Your task to perform on an android device: Add "bose soundlink" to the cart on walmart.com Image 0: 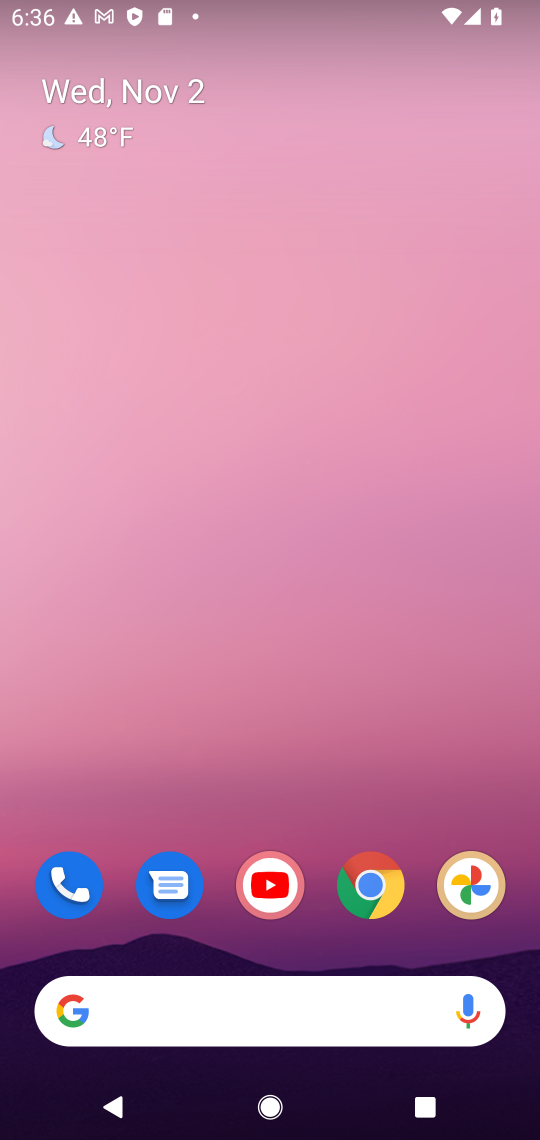
Step 0: click (367, 884)
Your task to perform on an android device: Add "bose soundlink" to the cart on walmart.com Image 1: 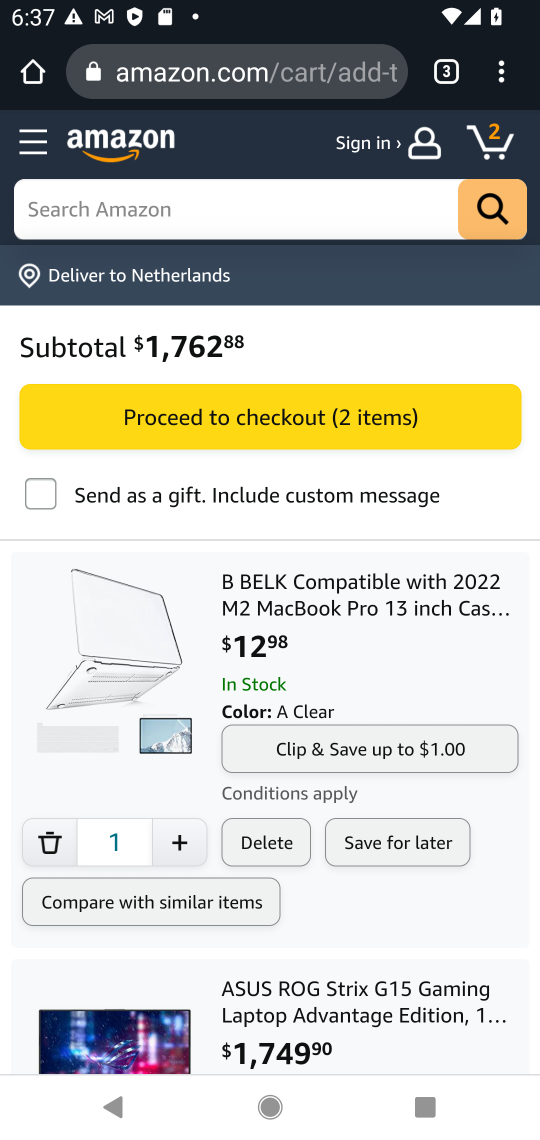
Step 1: drag from (499, 85) to (251, 151)
Your task to perform on an android device: Add "bose soundlink" to the cart on walmart.com Image 2: 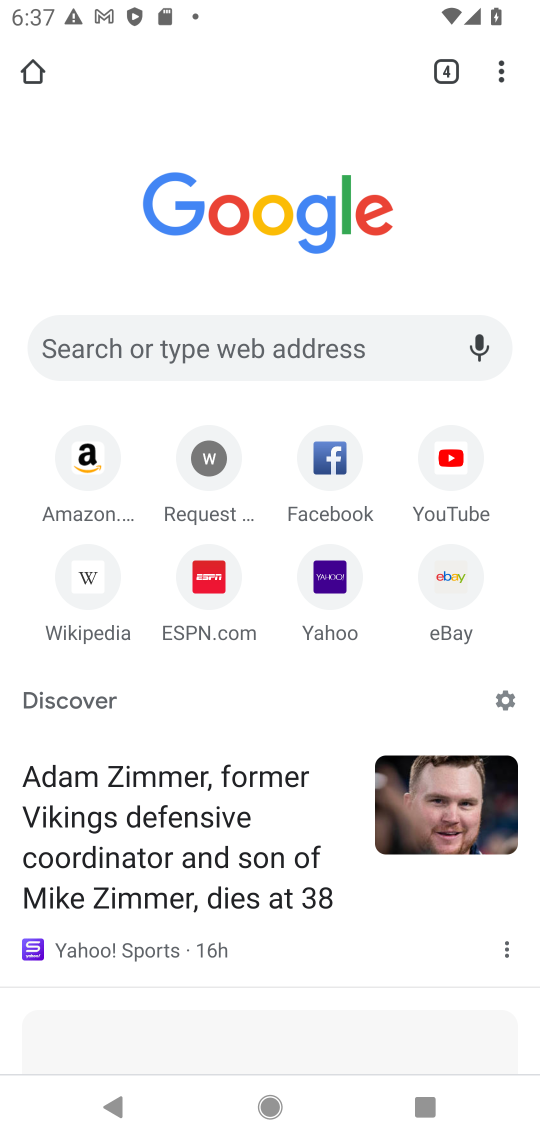
Step 2: click (219, 355)
Your task to perform on an android device: Add "bose soundlink" to the cart on walmart.com Image 3: 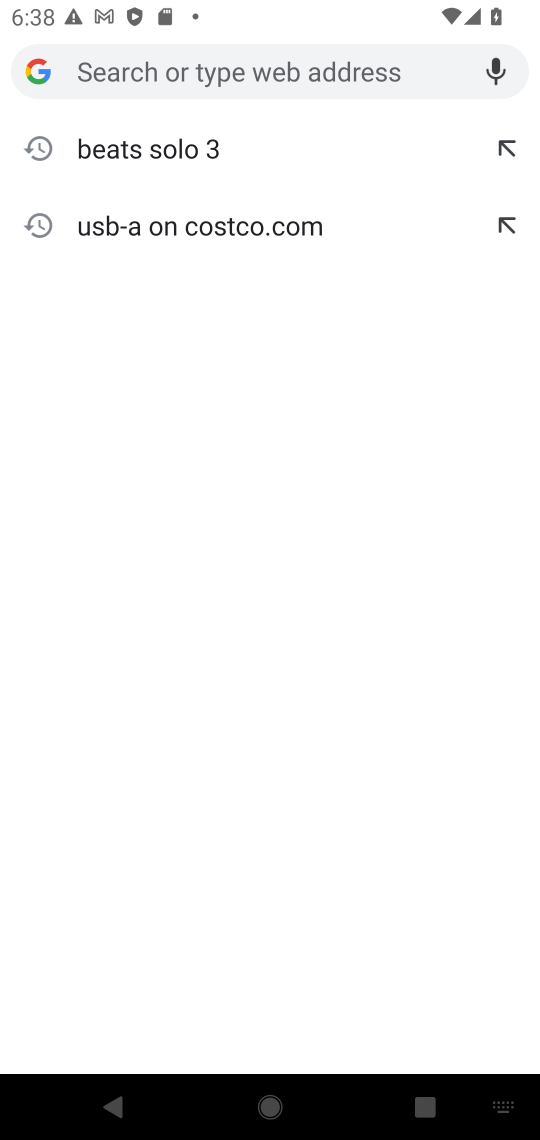
Step 3: type "bose soundlink""
Your task to perform on an android device: Add "bose soundlink" to the cart on walmart.com Image 4: 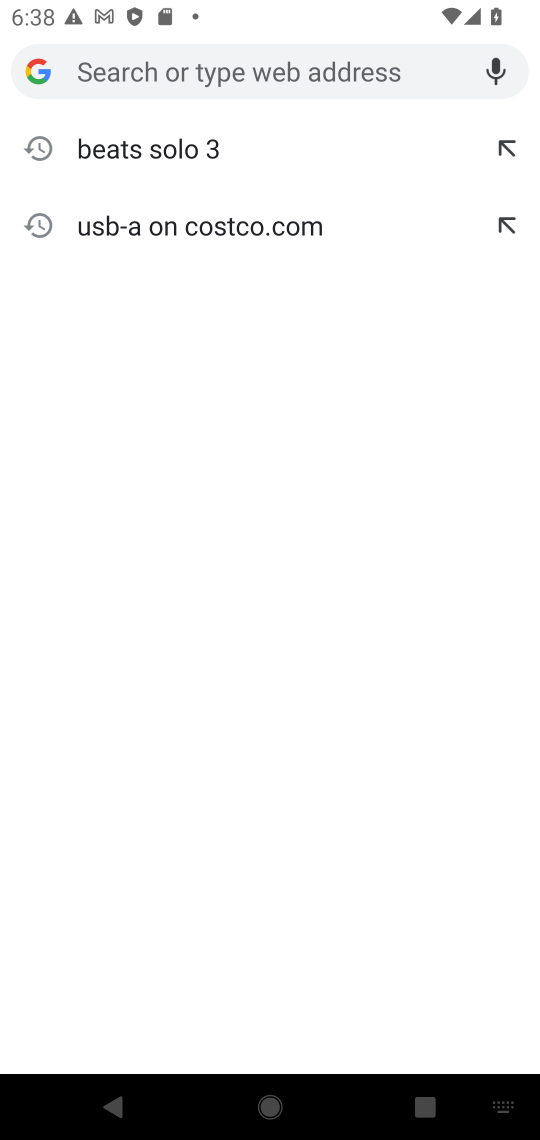
Step 4: type ""
Your task to perform on an android device: Add "bose soundlink" to the cart on walmart.com Image 5: 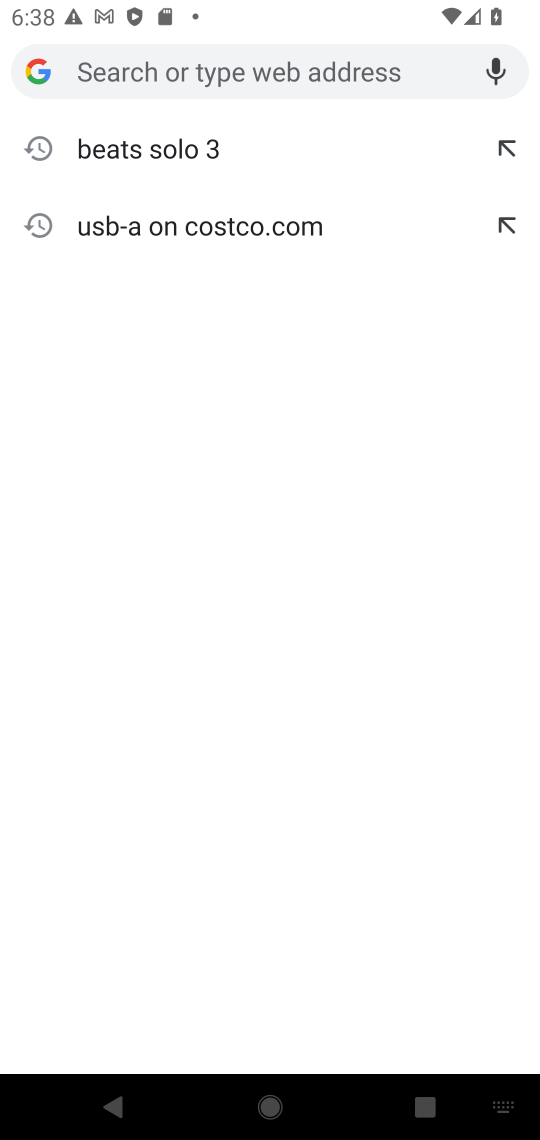
Step 5: type "bose soundlink""
Your task to perform on an android device: Add "bose soundlink" to the cart on walmart.com Image 6: 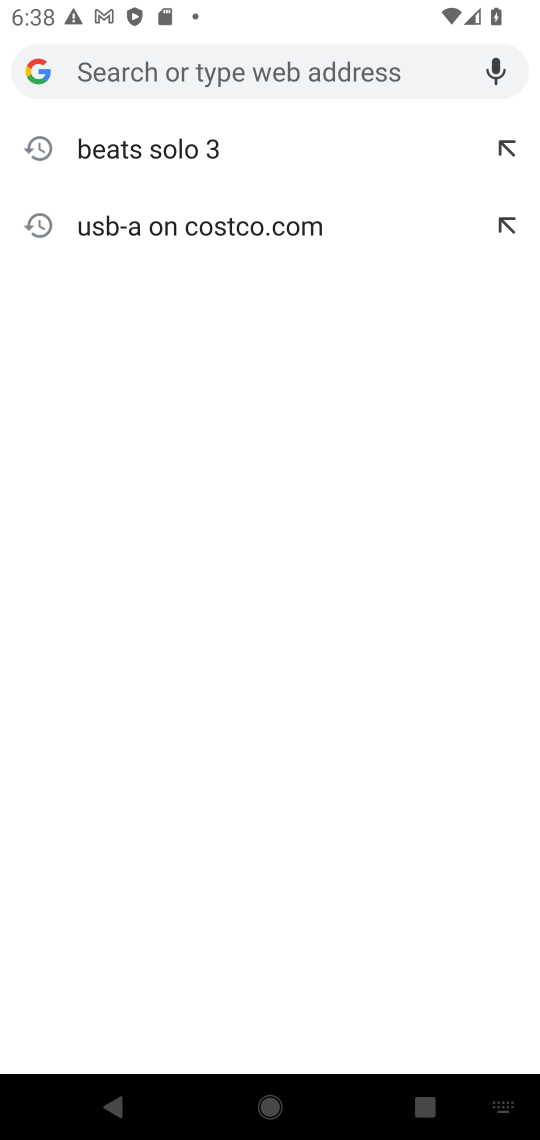
Step 6: type ""
Your task to perform on an android device: Add "bose soundlink" to the cart on walmart.com Image 7: 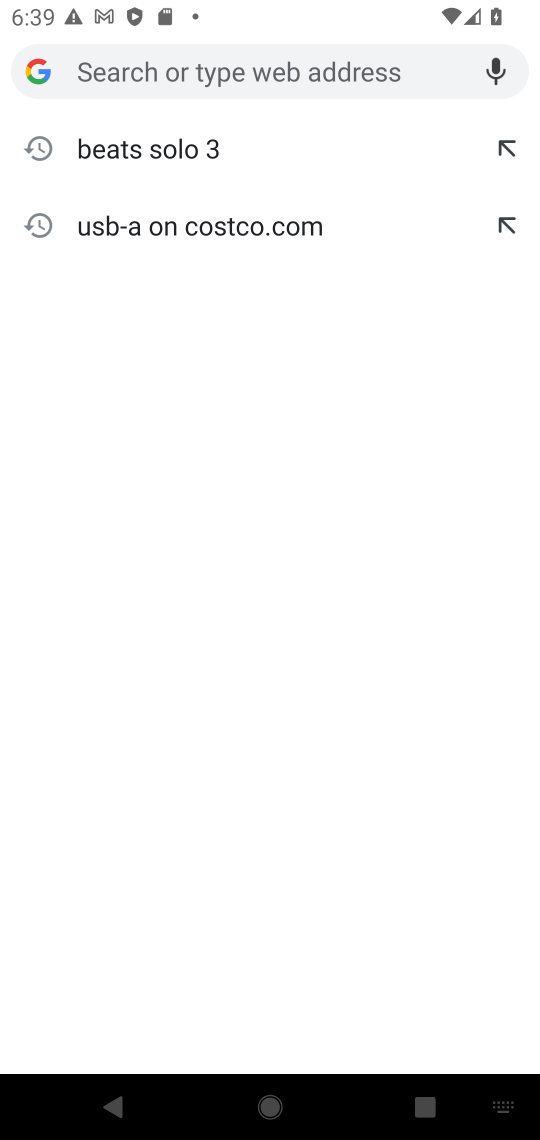
Step 7: type "walmart.com"
Your task to perform on an android device: Add "bose soundlink" to the cart on walmart.com Image 8: 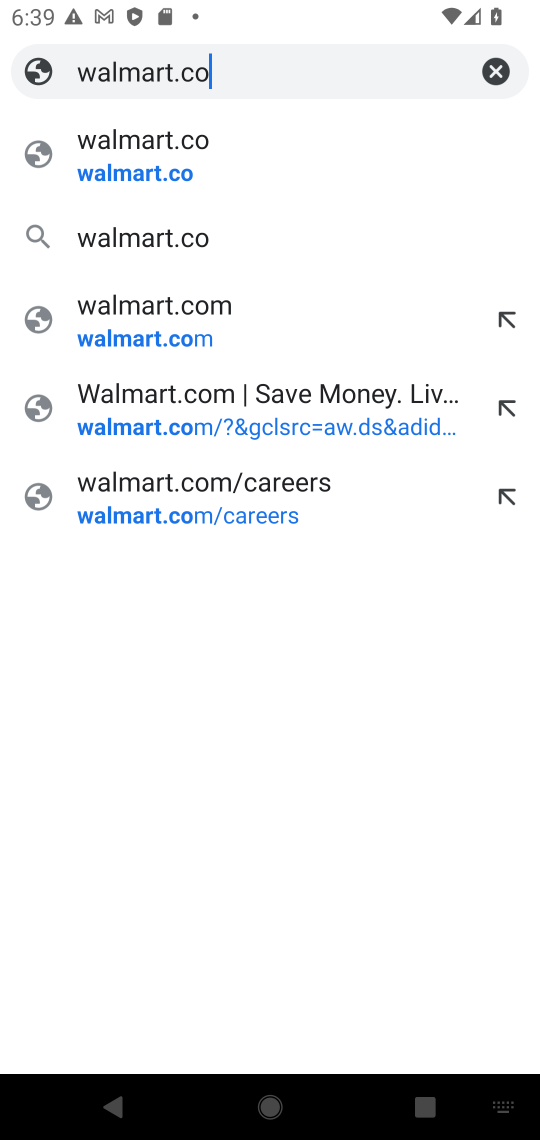
Step 8: type ""
Your task to perform on an android device: Add "bose soundlink" to the cart on walmart.com Image 9: 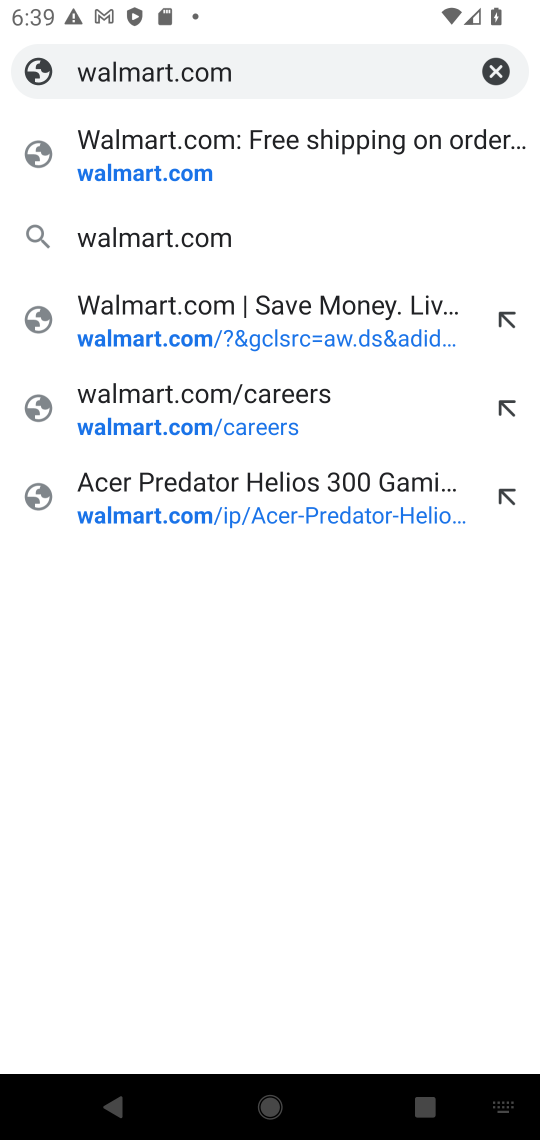
Step 9: click (154, 238)
Your task to perform on an android device: Add "bose soundlink" to the cart on walmart.com Image 10: 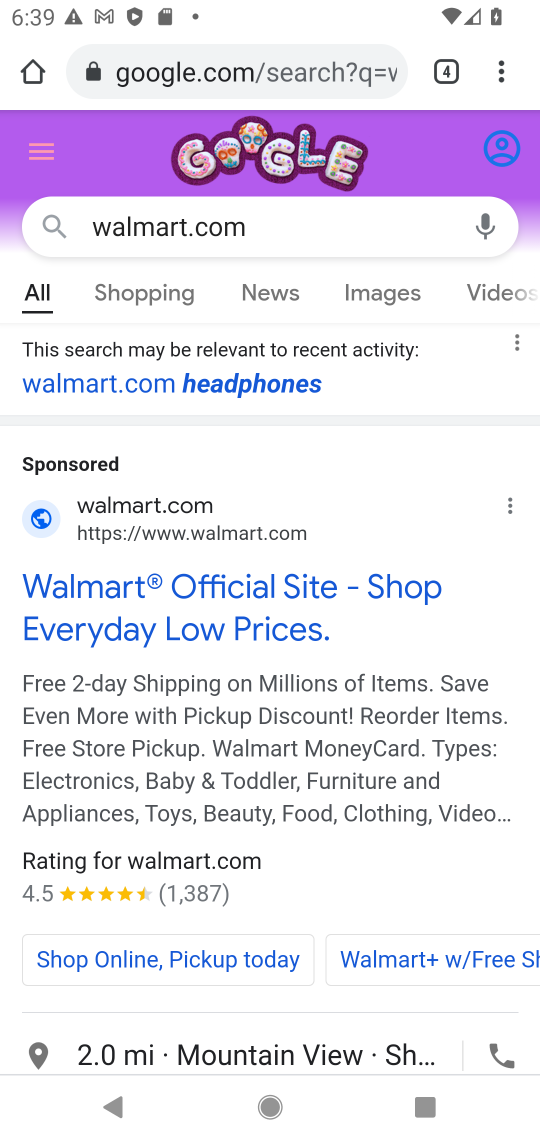
Step 10: click (270, 585)
Your task to perform on an android device: Add "bose soundlink" to the cart on walmart.com Image 11: 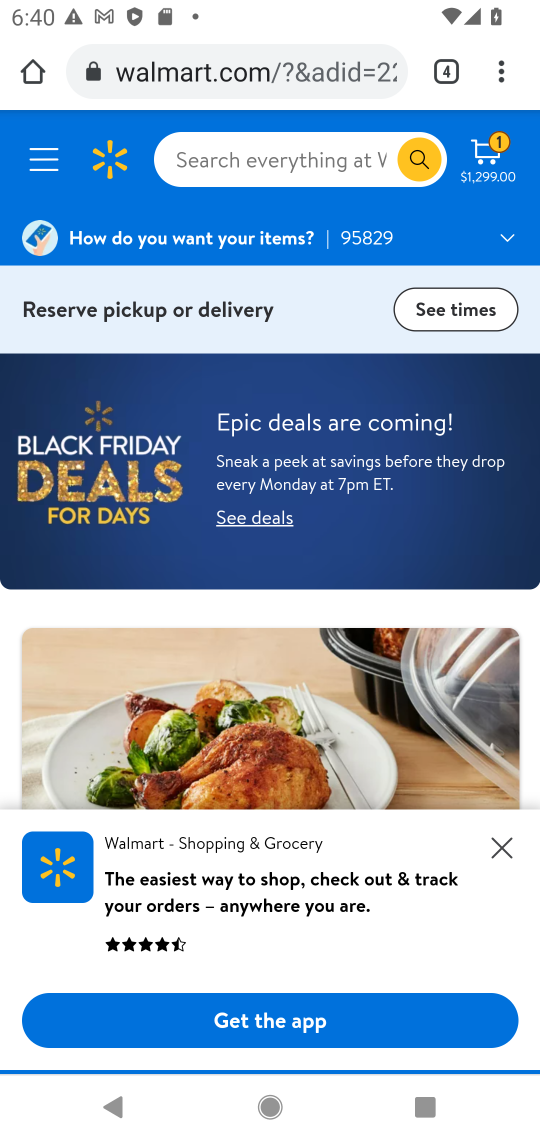
Step 11: click (265, 156)
Your task to perform on an android device: Add "bose soundlink" to the cart on walmart.com Image 12: 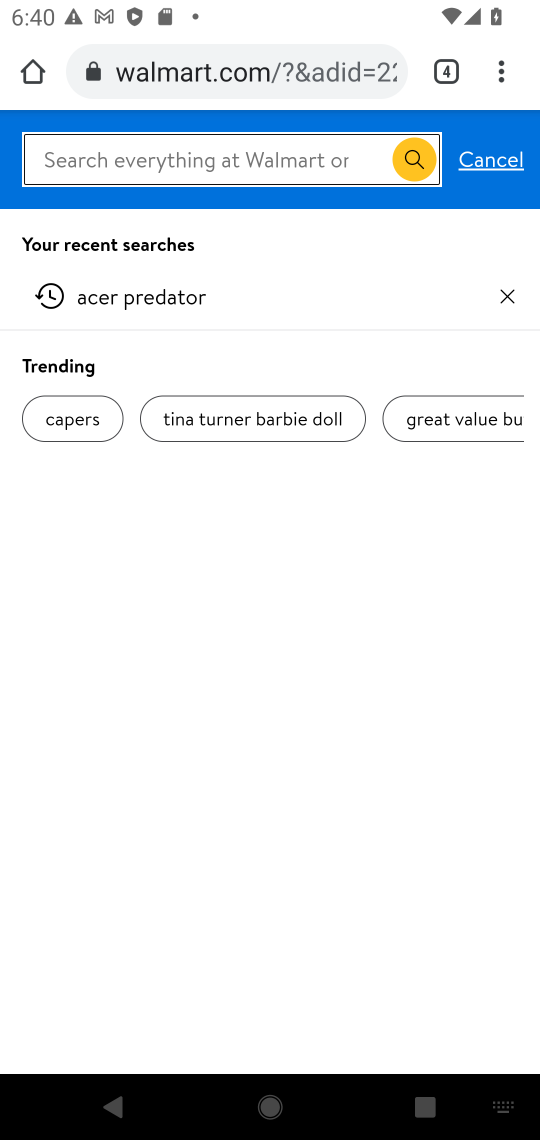
Step 12: click (284, 158)
Your task to perform on an android device: Add "bose soundlink" to the cart on walmart.com Image 13: 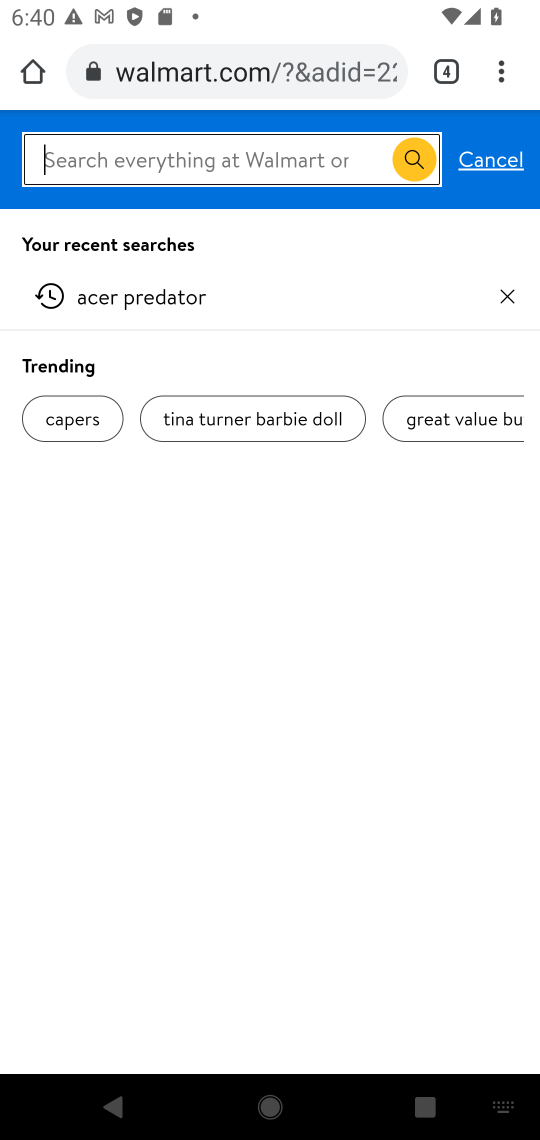
Step 13: type "bose soundlink"
Your task to perform on an android device: Add "bose soundlink" to the cart on walmart.com Image 14: 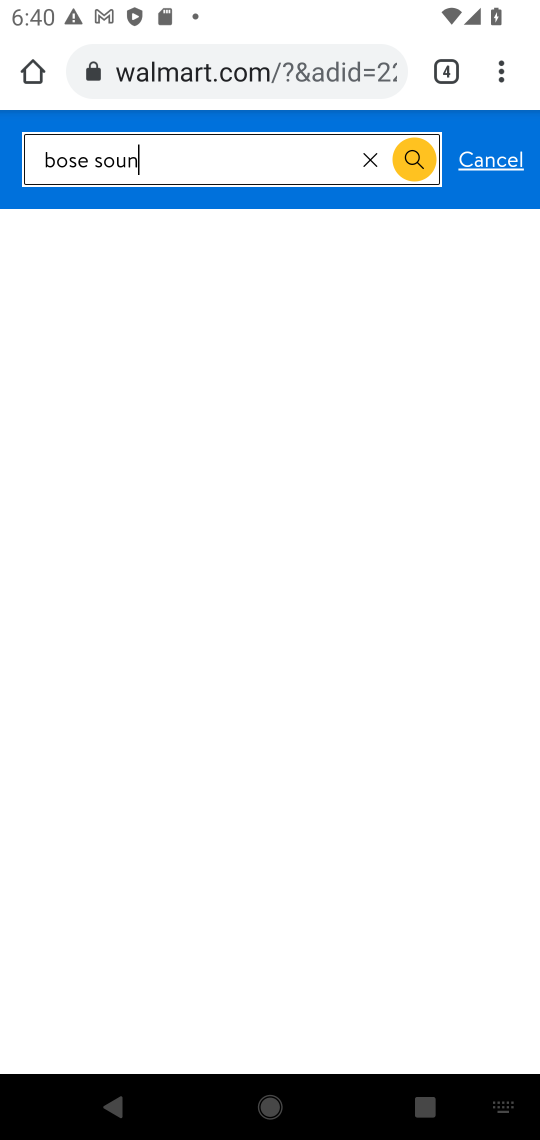
Step 14: type ""
Your task to perform on an android device: Add "bose soundlink" to the cart on walmart.com Image 15: 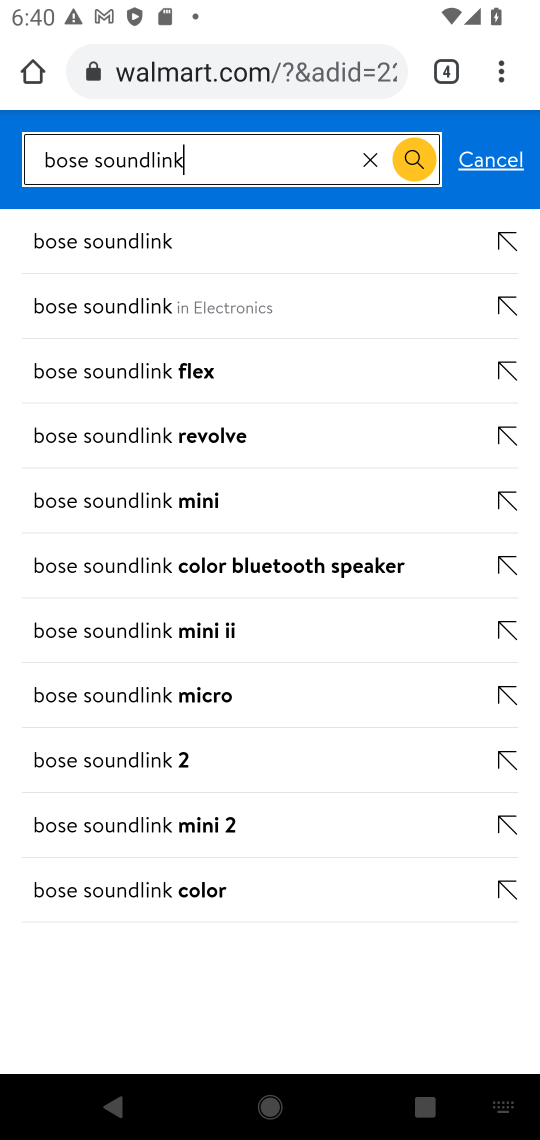
Step 15: click (168, 235)
Your task to perform on an android device: Add "bose soundlink" to the cart on walmart.com Image 16: 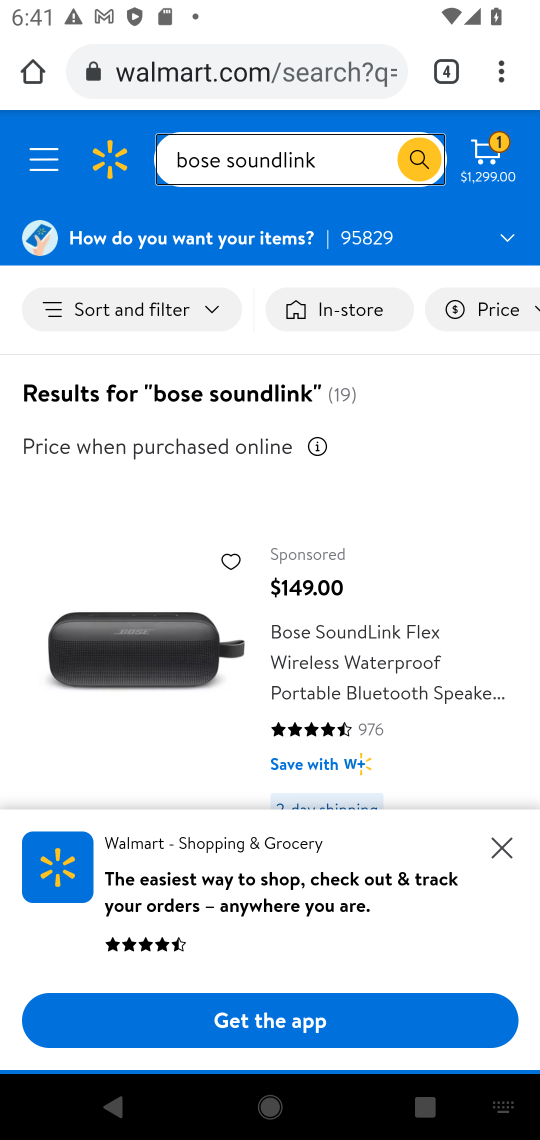
Step 16: click (431, 161)
Your task to perform on an android device: Add "bose soundlink" to the cart on walmart.com Image 17: 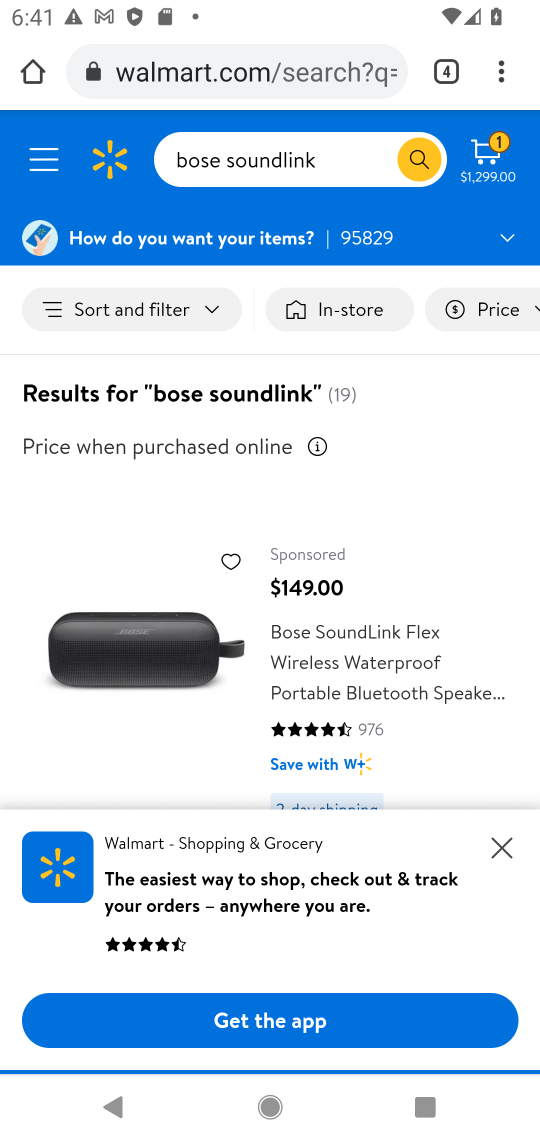
Step 17: click (507, 840)
Your task to perform on an android device: Add "bose soundlink" to the cart on walmart.com Image 18: 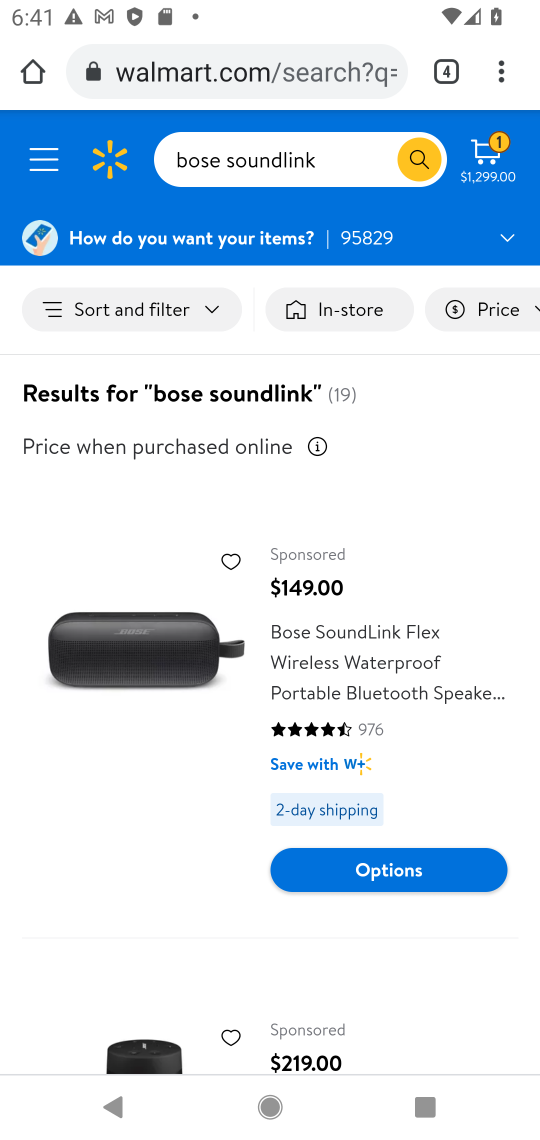
Step 18: click (331, 633)
Your task to perform on an android device: Add "bose soundlink" to the cart on walmart.com Image 19: 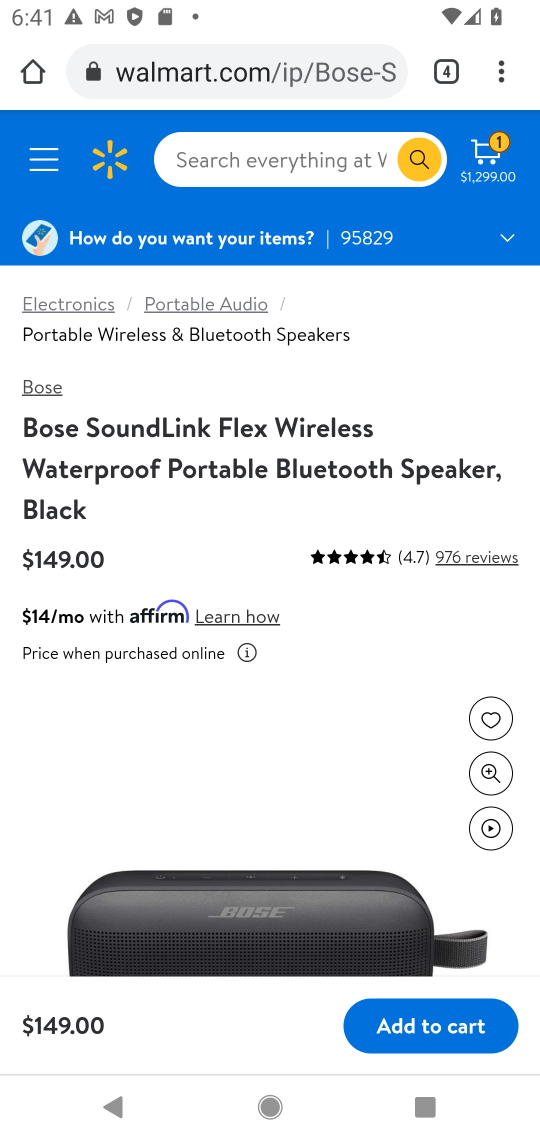
Step 19: click (451, 1024)
Your task to perform on an android device: Add "bose soundlink" to the cart on walmart.com Image 20: 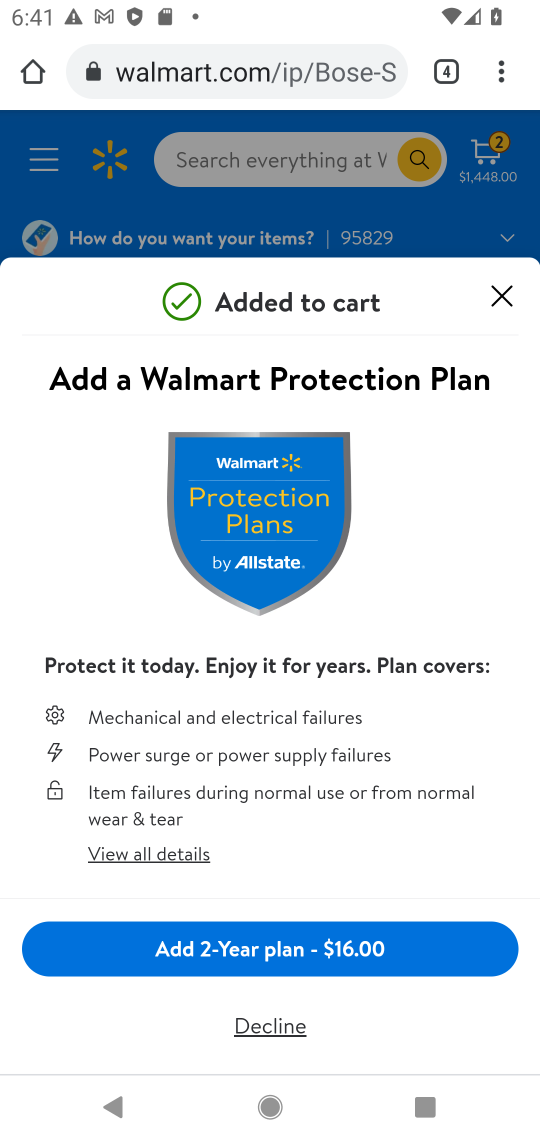
Step 20: task complete